Your task to perform on an android device: install app "Instagram" Image 0: 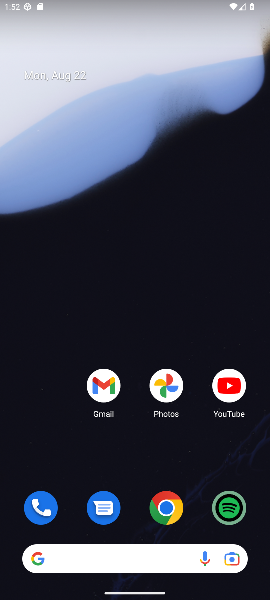
Step 0: drag from (138, 519) to (138, 124)
Your task to perform on an android device: install app "Instagram" Image 1: 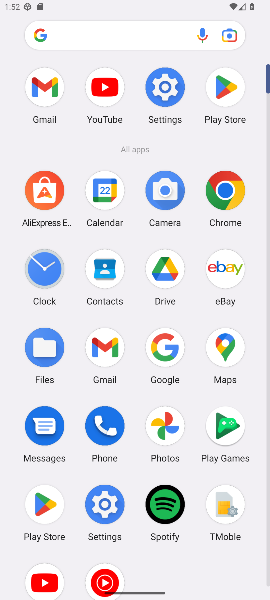
Step 1: click (219, 89)
Your task to perform on an android device: install app "Instagram" Image 2: 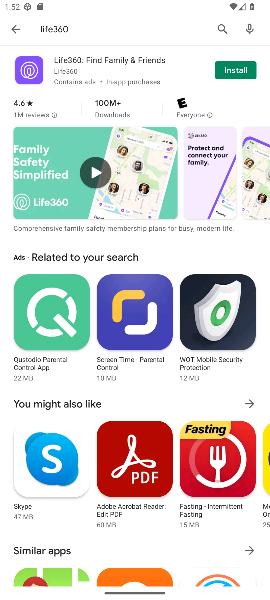
Step 2: click (222, 27)
Your task to perform on an android device: install app "Instagram" Image 3: 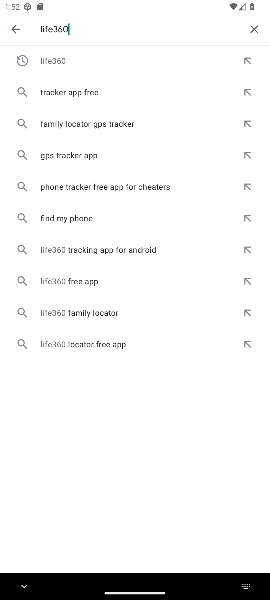
Step 3: click (256, 29)
Your task to perform on an android device: install app "Instagram" Image 4: 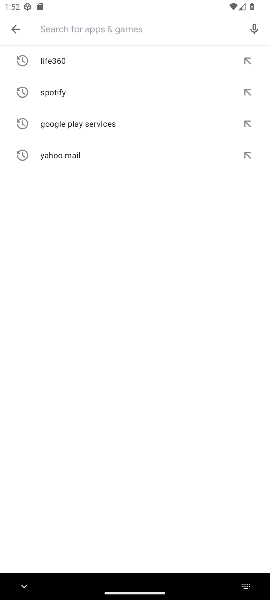
Step 4: type "instagram"
Your task to perform on an android device: install app "Instagram" Image 5: 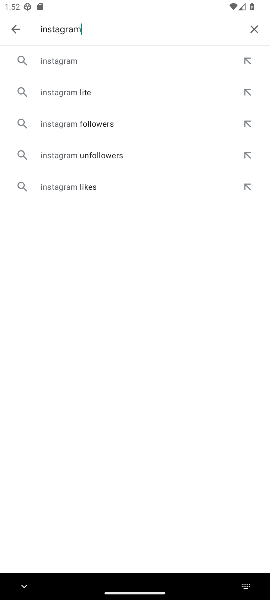
Step 5: click (63, 51)
Your task to perform on an android device: install app "Instagram" Image 6: 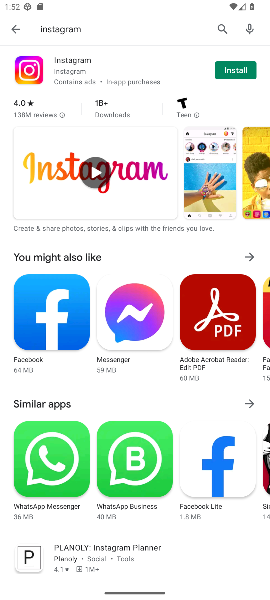
Step 6: click (235, 70)
Your task to perform on an android device: install app "Instagram" Image 7: 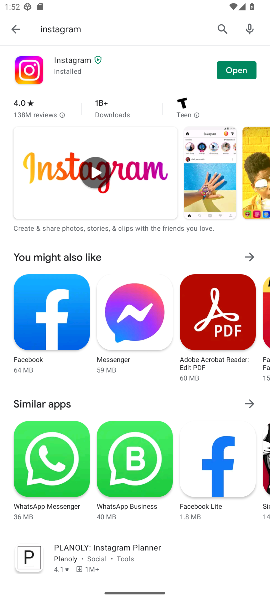
Step 7: task complete